Your task to perform on an android device: Go to Google maps Image 0: 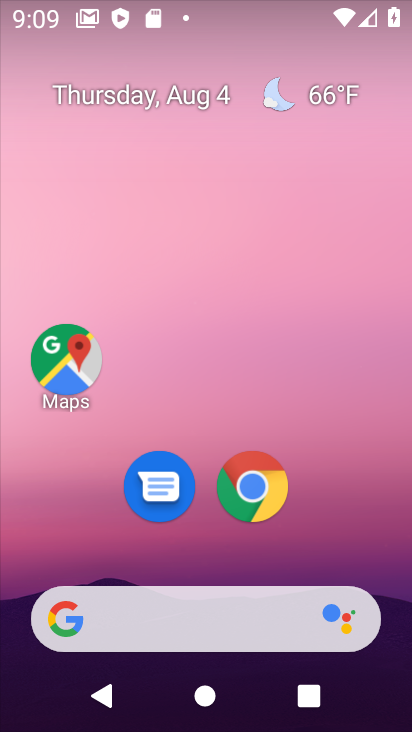
Step 0: click (54, 339)
Your task to perform on an android device: Go to Google maps Image 1: 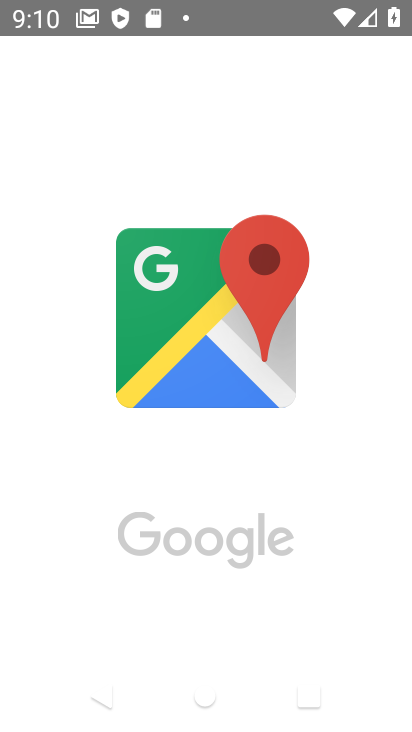
Step 1: task complete